Your task to perform on an android device: Go to location settings Image 0: 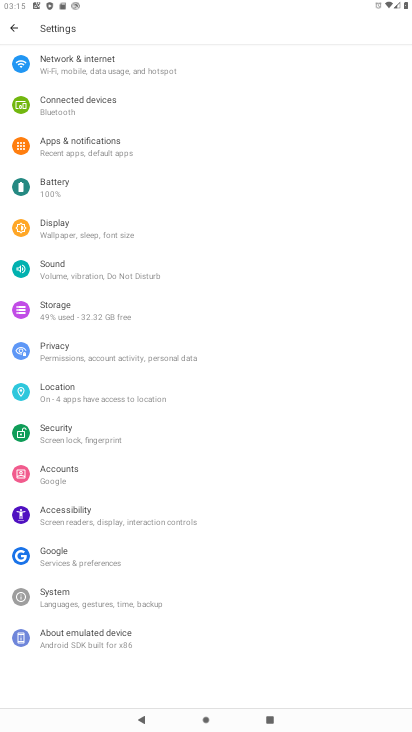
Step 0: click (57, 392)
Your task to perform on an android device: Go to location settings Image 1: 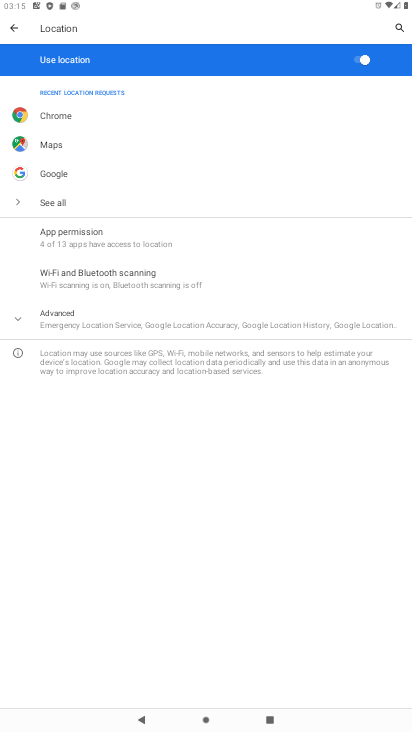
Step 1: task complete